Your task to perform on an android device: visit the assistant section in the google photos Image 0: 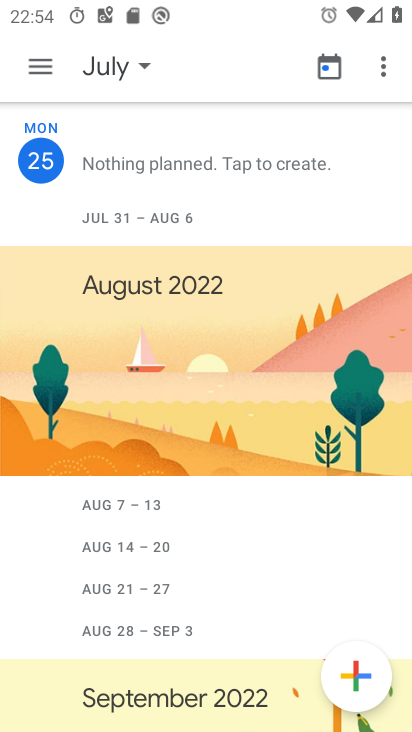
Step 0: press home button
Your task to perform on an android device: visit the assistant section in the google photos Image 1: 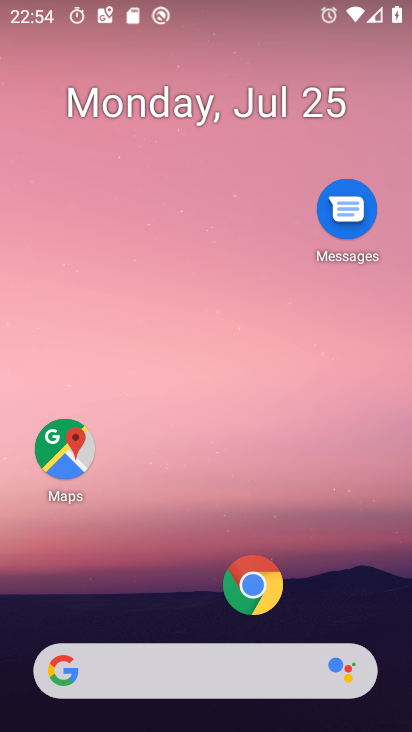
Step 1: drag from (181, 634) to (318, 192)
Your task to perform on an android device: visit the assistant section in the google photos Image 2: 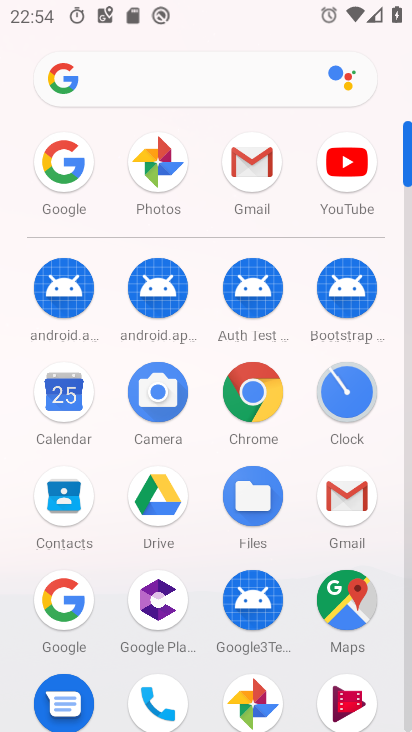
Step 2: click (165, 173)
Your task to perform on an android device: visit the assistant section in the google photos Image 3: 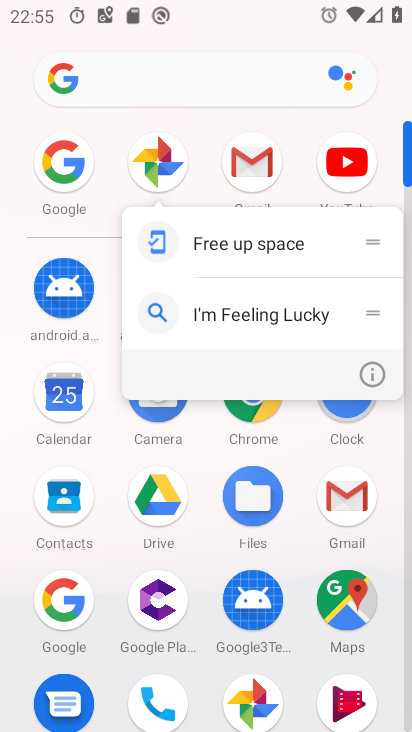
Step 3: click (161, 165)
Your task to perform on an android device: visit the assistant section in the google photos Image 4: 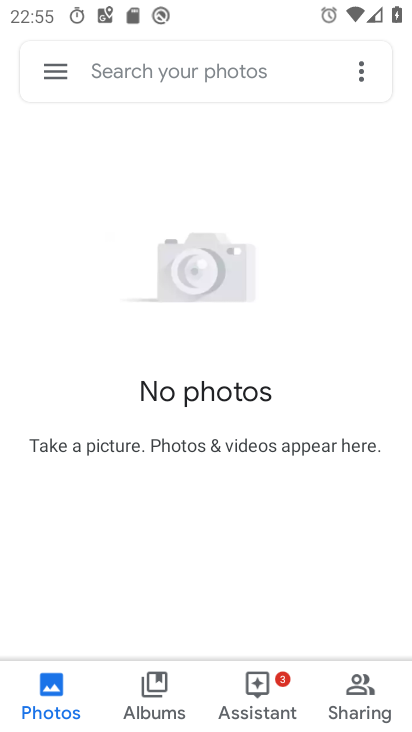
Step 4: click (267, 689)
Your task to perform on an android device: visit the assistant section in the google photos Image 5: 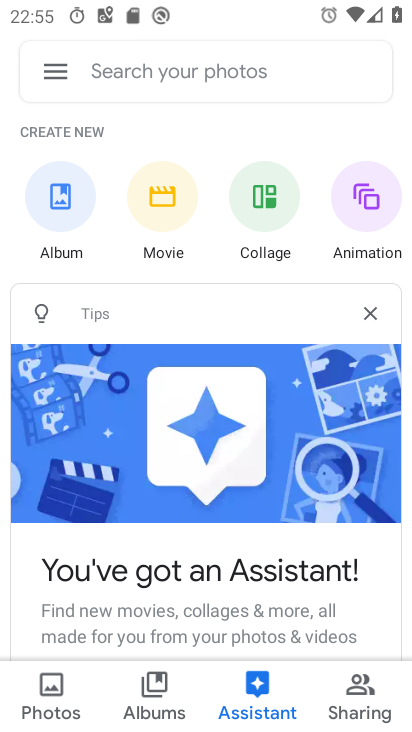
Step 5: task complete